Your task to perform on an android device: Open ESPN.com Image 0: 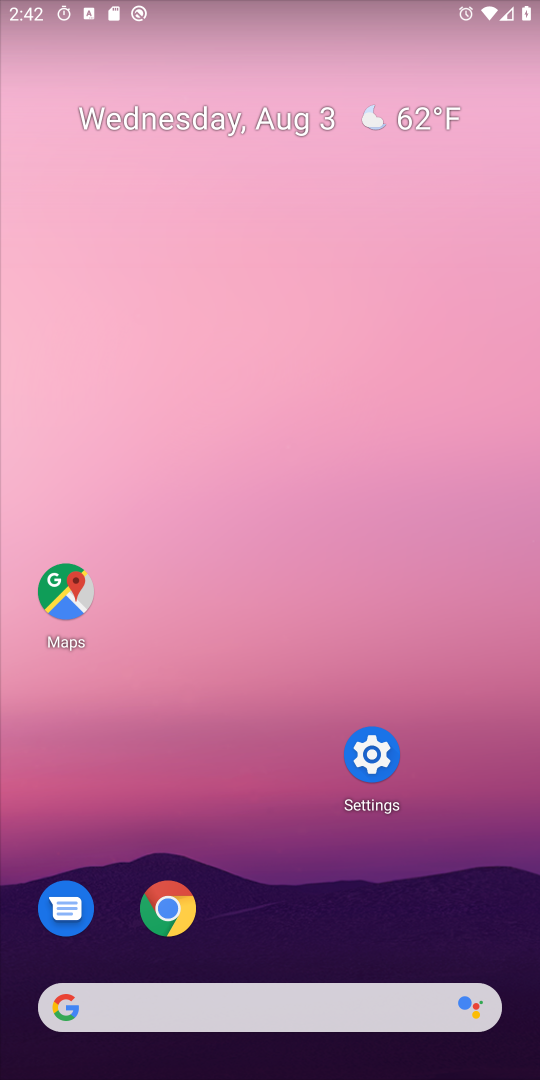
Step 0: drag from (278, 884) to (288, 3)
Your task to perform on an android device: Open ESPN.com Image 1: 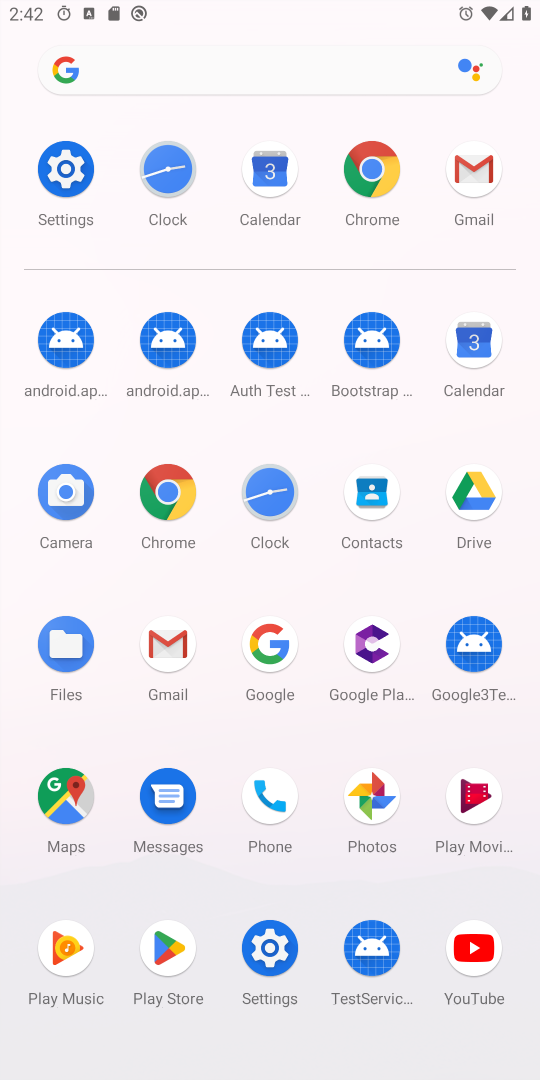
Step 1: click (170, 515)
Your task to perform on an android device: Open ESPN.com Image 2: 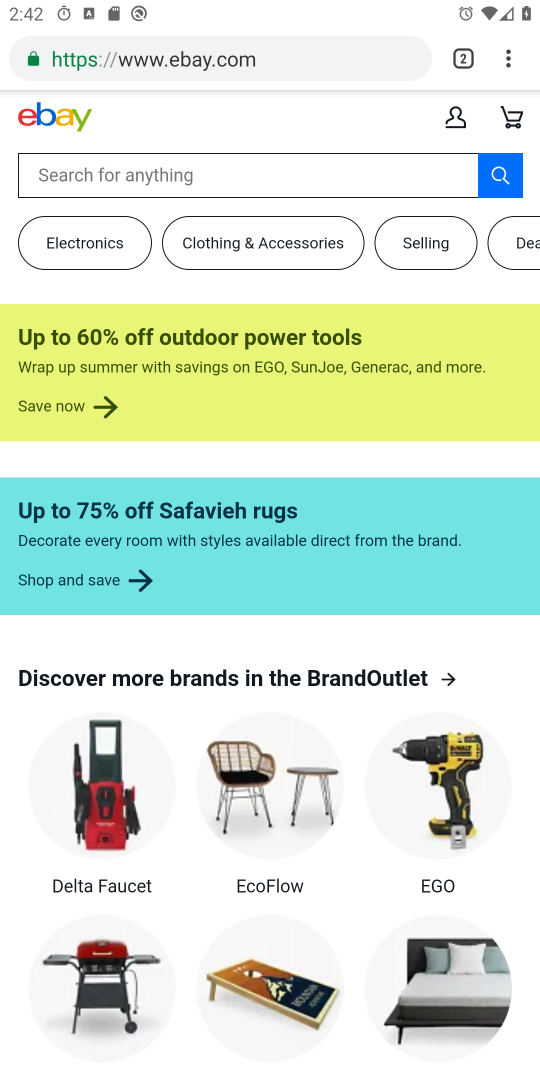
Step 2: click (467, 65)
Your task to perform on an android device: Open ESPN.com Image 3: 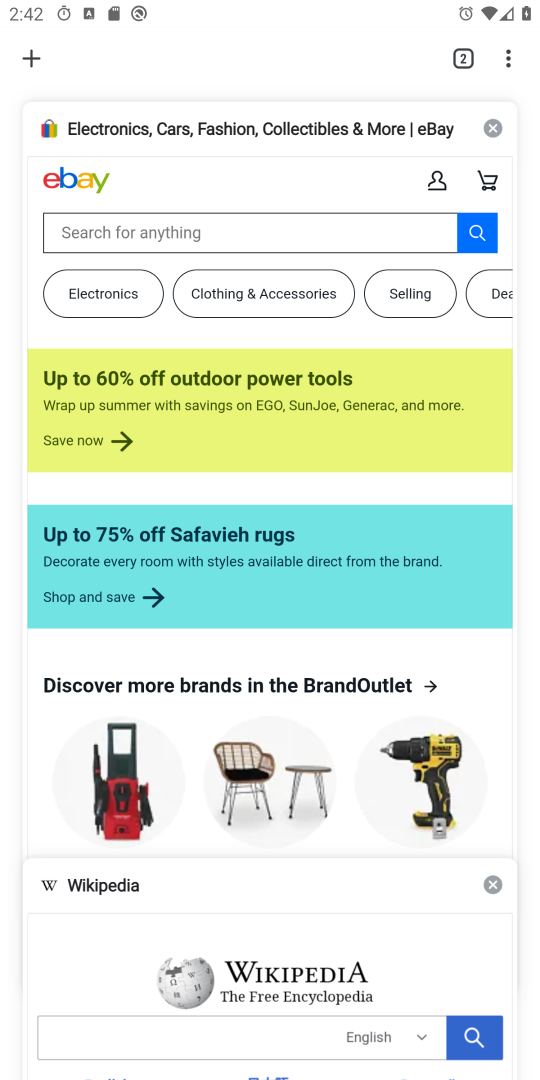
Step 3: click (27, 66)
Your task to perform on an android device: Open ESPN.com Image 4: 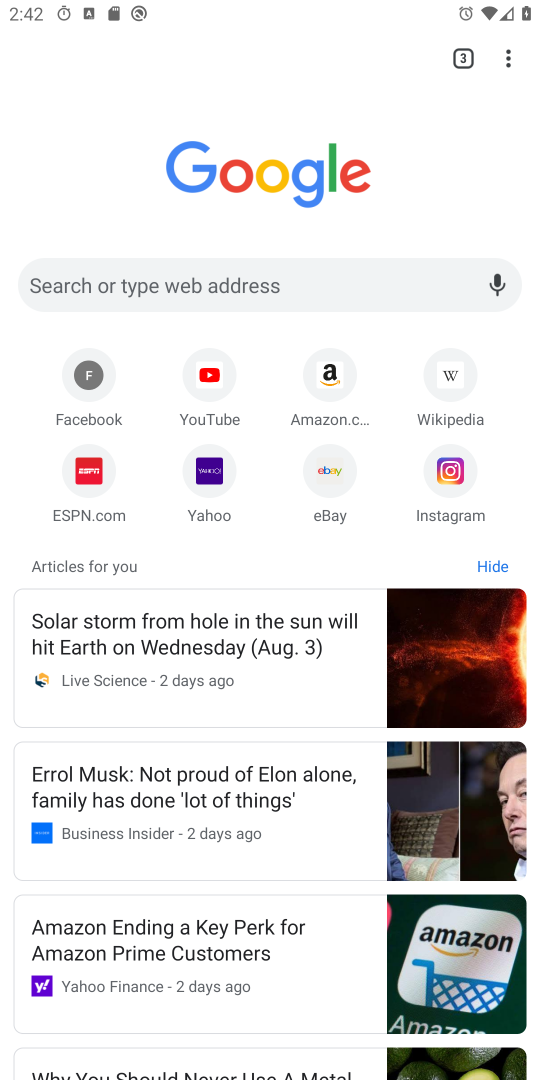
Step 4: click (106, 487)
Your task to perform on an android device: Open ESPN.com Image 5: 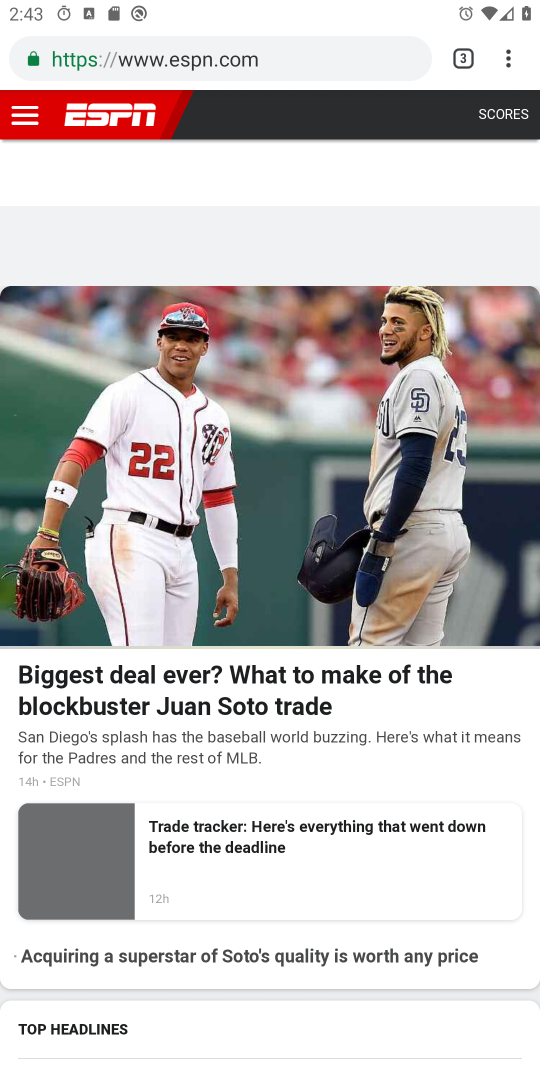
Step 5: task complete